Your task to perform on an android device: Go to Yahoo.com Image 0: 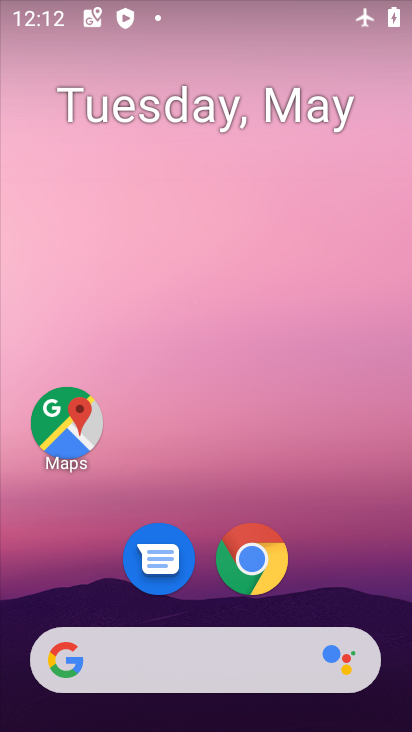
Step 0: drag from (376, 582) to (338, 168)
Your task to perform on an android device: Go to Yahoo.com Image 1: 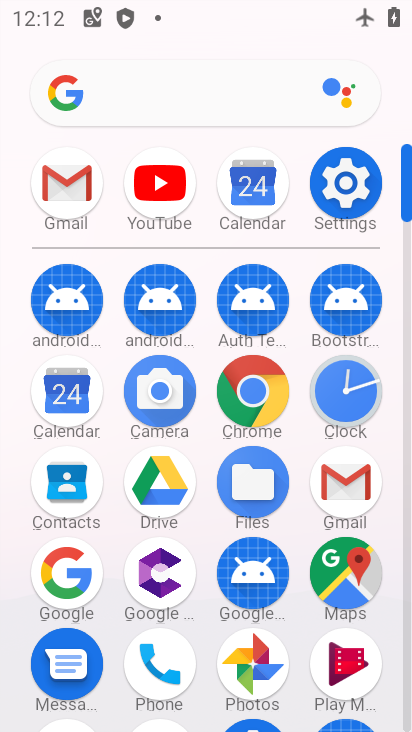
Step 1: click (319, 207)
Your task to perform on an android device: Go to Yahoo.com Image 2: 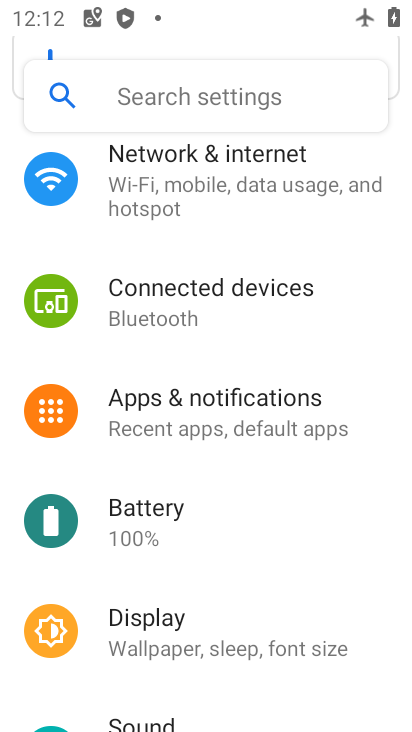
Step 2: click (268, 211)
Your task to perform on an android device: Go to Yahoo.com Image 3: 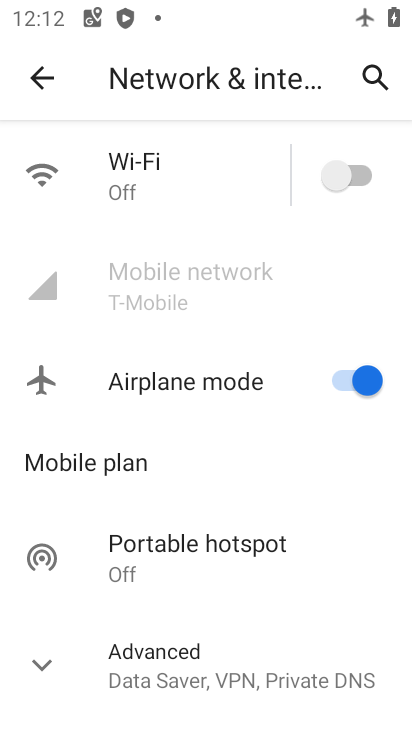
Step 3: click (357, 191)
Your task to perform on an android device: Go to Yahoo.com Image 4: 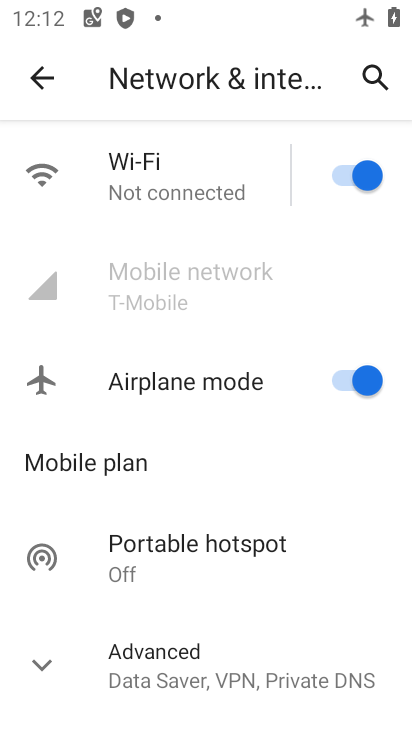
Step 4: click (372, 365)
Your task to perform on an android device: Go to Yahoo.com Image 5: 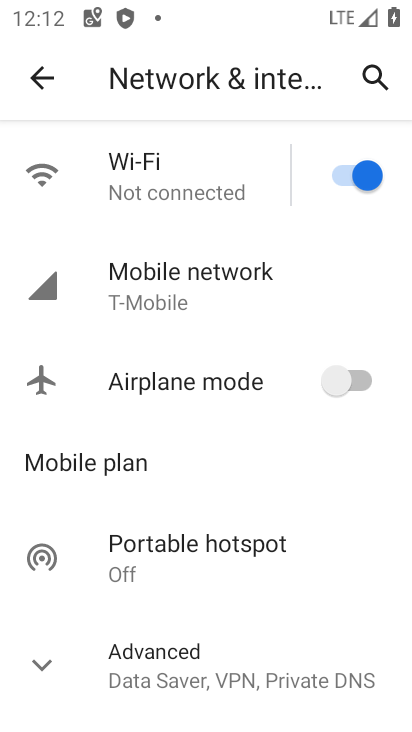
Step 5: press home button
Your task to perform on an android device: Go to Yahoo.com Image 6: 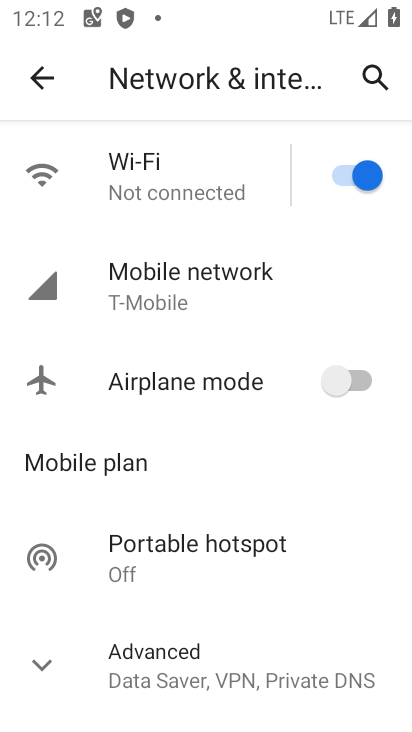
Step 6: press home button
Your task to perform on an android device: Go to Yahoo.com Image 7: 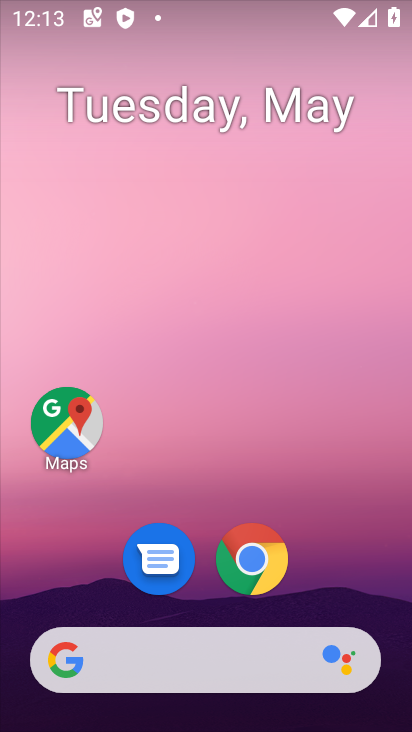
Step 7: click (268, 572)
Your task to perform on an android device: Go to Yahoo.com Image 8: 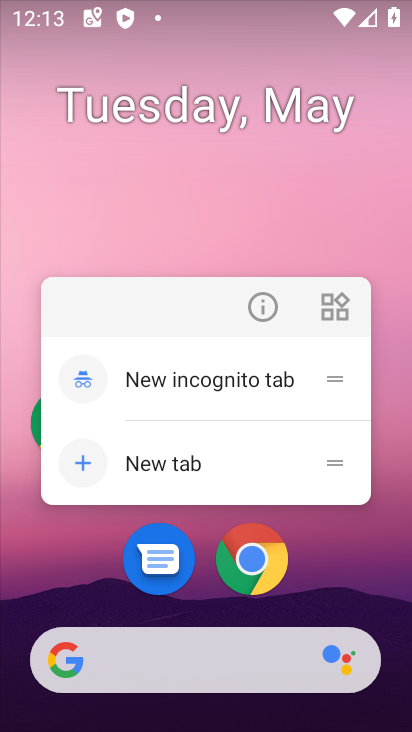
Step 8: click (211, 475)
Your task to perform on an android device: Go to Yahoo.com Image 9: 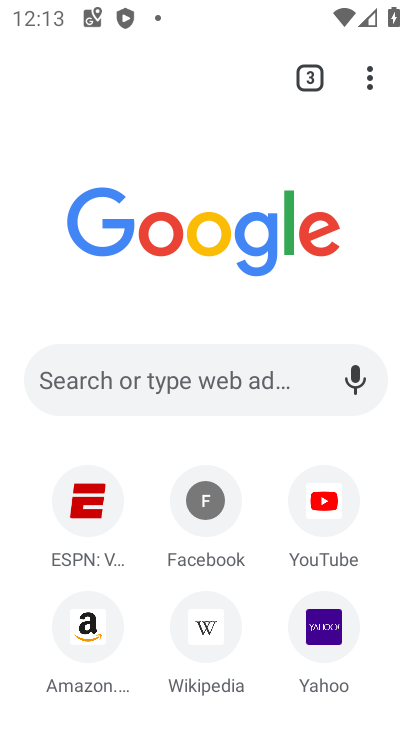
Step 9: click (349, 699)
Your task to perform on an android device: Go to Yahoo.com Image 10: 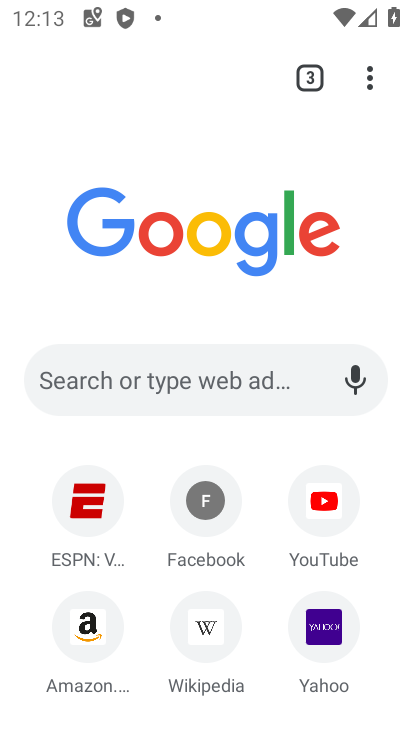
Step 10: click (340, 619)
Your task to perform on an android device: Go to Yahoo.com Image 11: 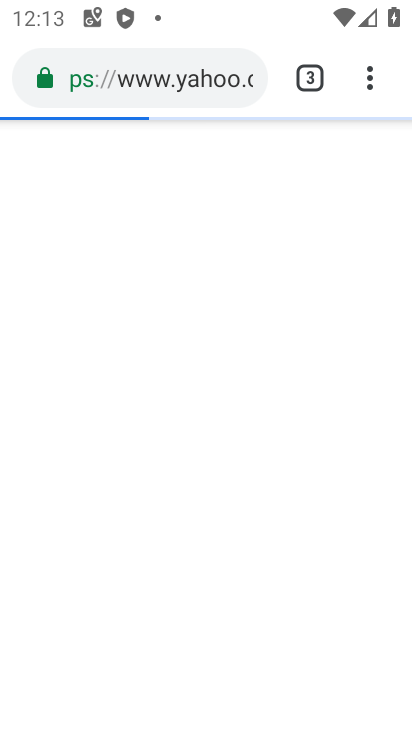
Step 11: task complete